Your task to perform on an android device: Do I have any events tomorrow? Image 0: 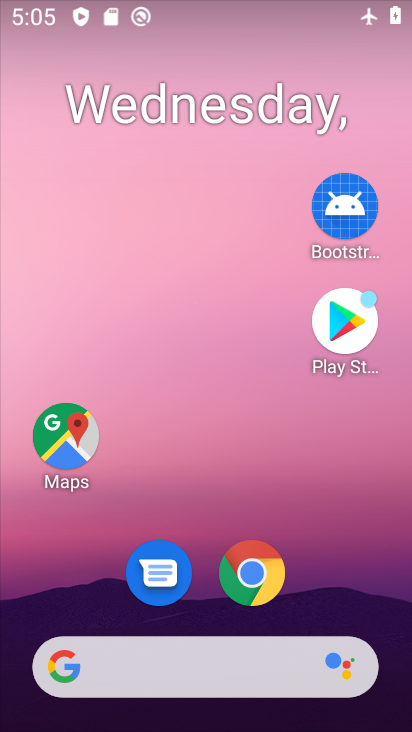
Step 0: click (290, 37)
Your task to perform on an android device: Do I have any events tomorrow? Image 1: 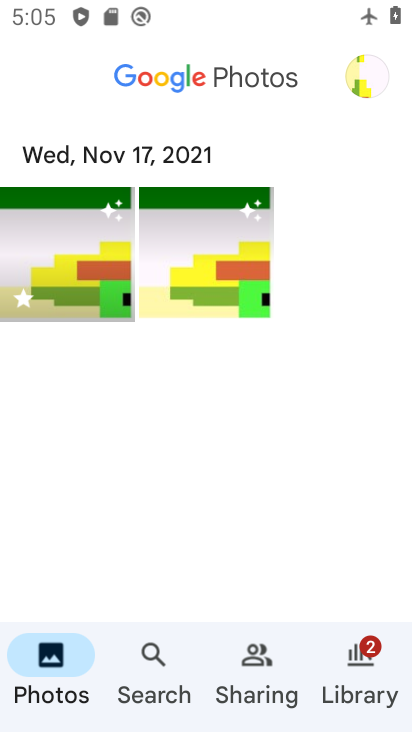
Step 1: press home button
Your task to perform on an android device: Do I have any events tomorrow? Image 2: 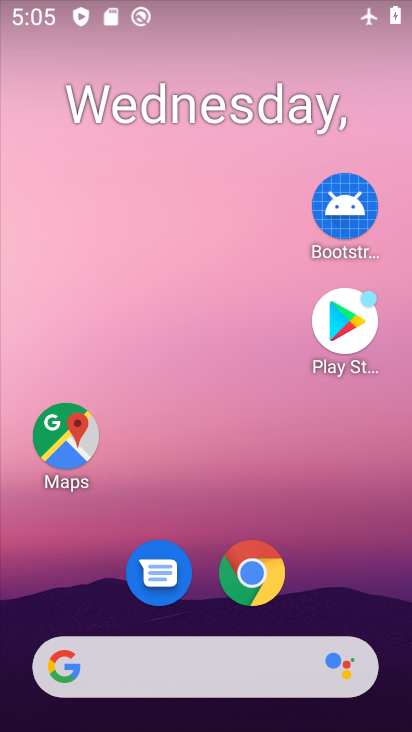
Step 2: drag from (317, 546) to (279, 35)
Your task to perform on an android device: Do I have any events tomorrow? Image 3: 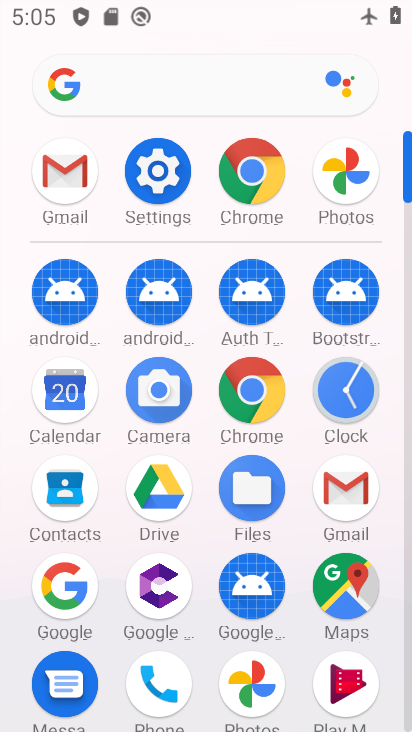
Step 3: click (64, 396)
Your task to perform on an android device: Do I have any events tomorrow? Image 4: 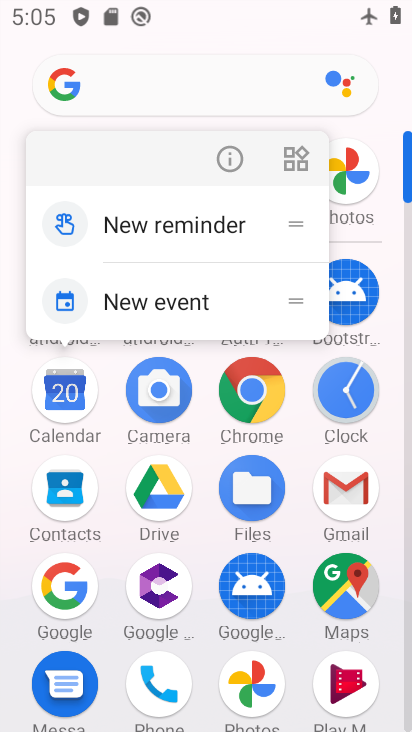
Step 4: click (64, 396)
Your task to perform on an android device: Do I have any events tomorrow? Image 5: 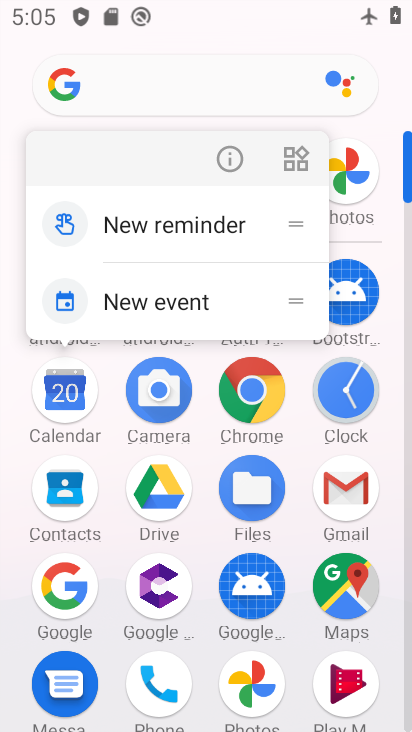
Step 5: click (59, 410)
Your task to perform on an android device: Do I have any events tomorrow? Image 6: 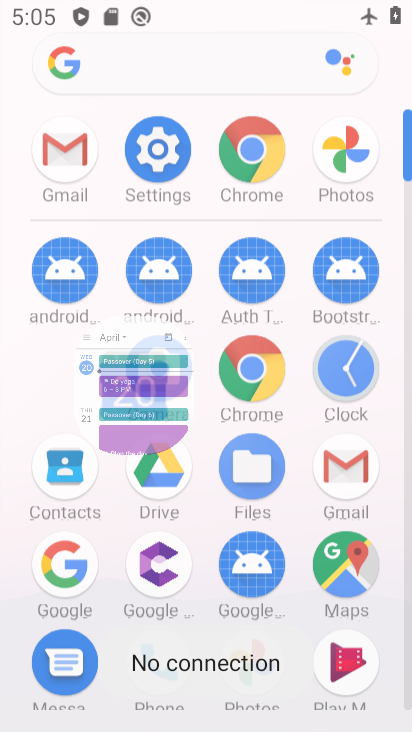
Step 6: click (59, 410)
Your task to perform on an android device: Do I have any events tomorrow? Image 7: 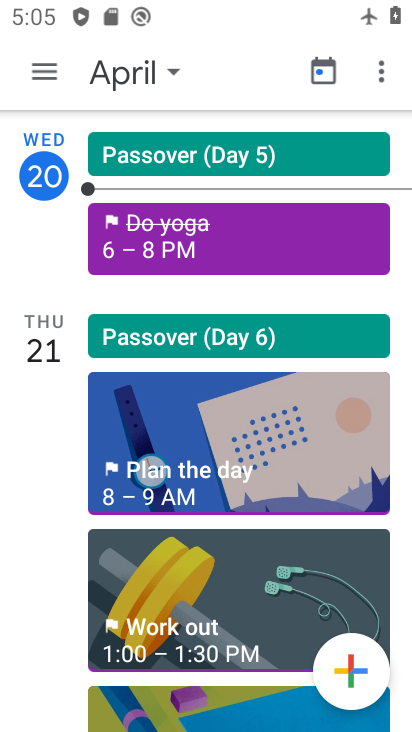
Step 7: click (160, 71)
Your task to perform on an android device: Do I have any events tomorrow? Image 8: 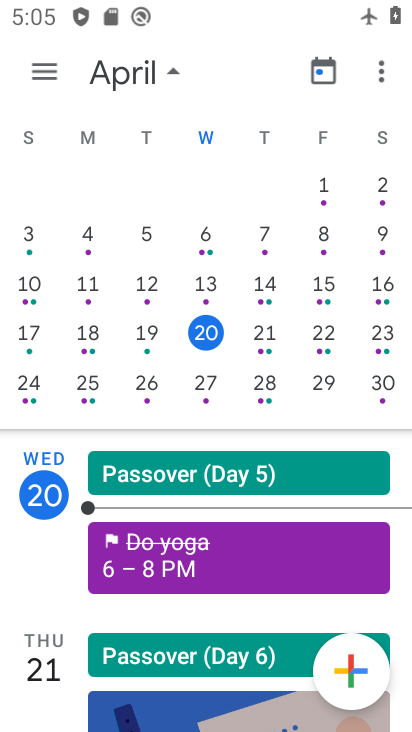
Step 8: click (257, 341)
Your task to perform on an android device: Do I have any events tomorrow? Image 9: 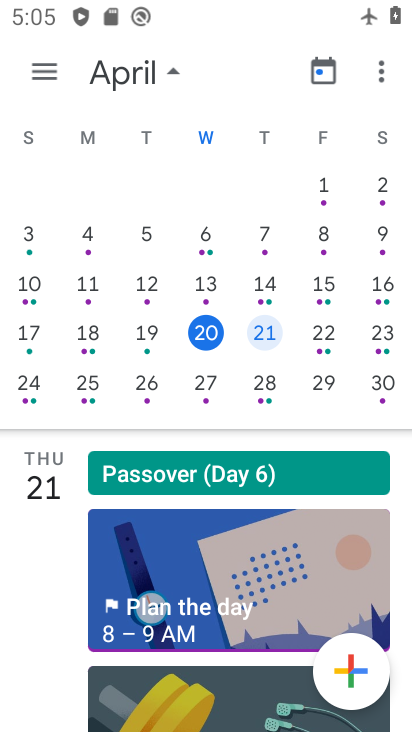
Step 9: task complete